Your task to perform on an android device: Play the last video I watched on Youtube Image 0: 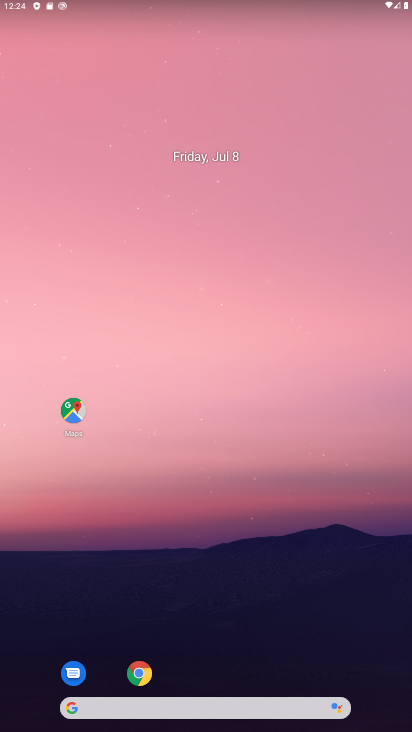
Step 0: press home button
Your task to perform on an android device: Play the last video I watched on Youtube Image 1: 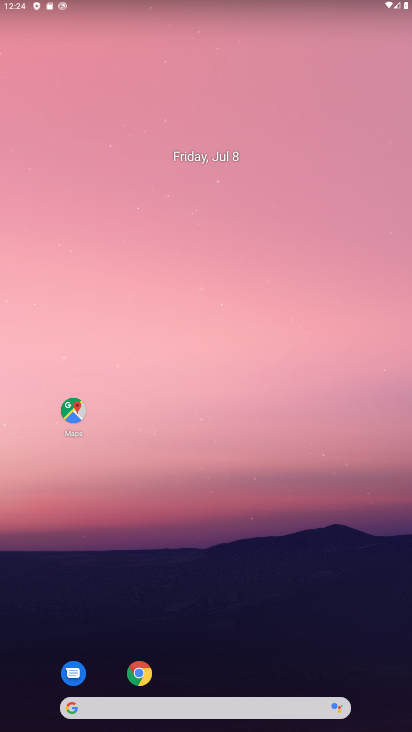
Step 1: drag from (282, 540) to (255, 177)
Your task to perform on an android device: Play the last video I watched on Youtube Image 2: 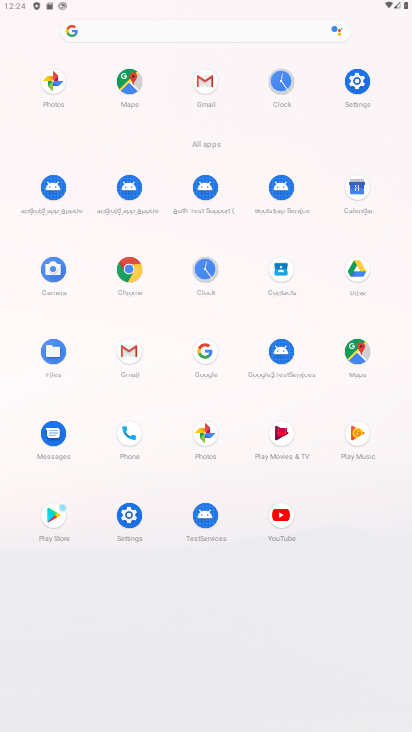
Step 2: click (278, 517)
Your task to perform on an android device: Play the last video I watched on Youtube Image 3: 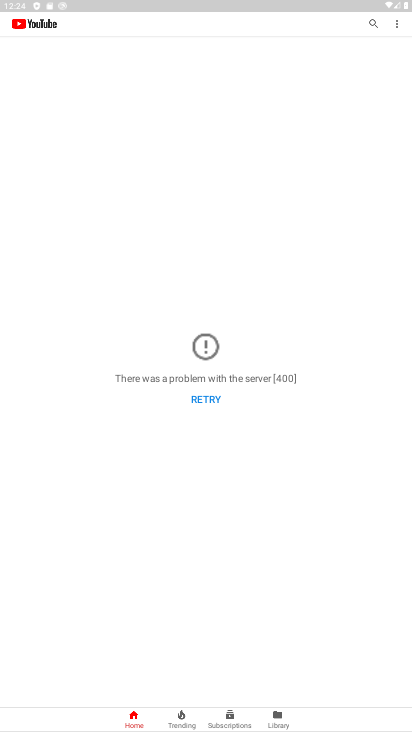
Step 3: click (204, 388)
Your task to perform on an android device: Play the last video I watched on Youtube Image 4: 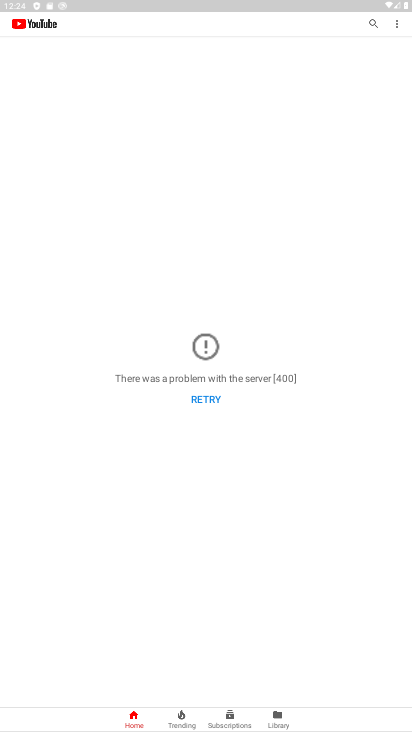
Step 4: task complete